Your task to perform on an android device: Open the phone app and click the voicemail tab. Image 0: 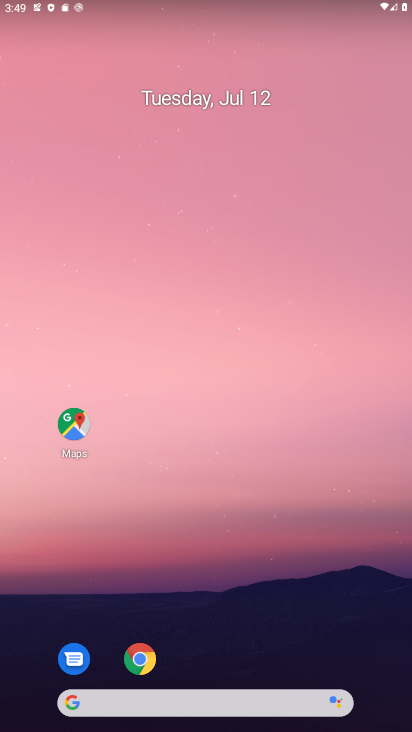
Step 0: drag from (194, 726) to (193, 561)
Your task to perform on an android device: Open the phone app and click the voicemail tab. Image 1: 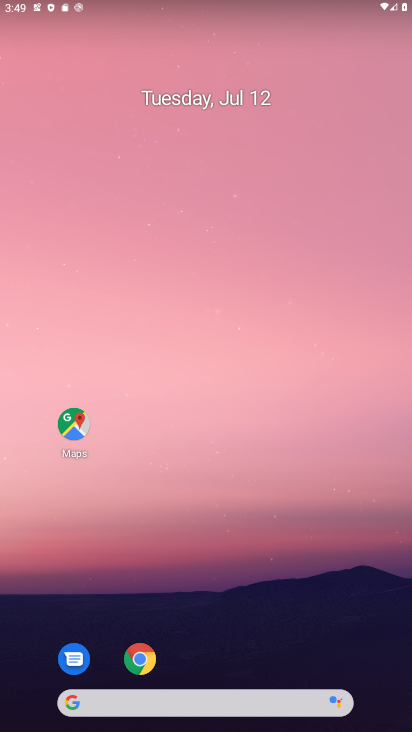
Step 1: drag from (188, 298) to (183, 163)
Your task to perform on an android device: Open the phone app and click the voicemail tab. Image 2: 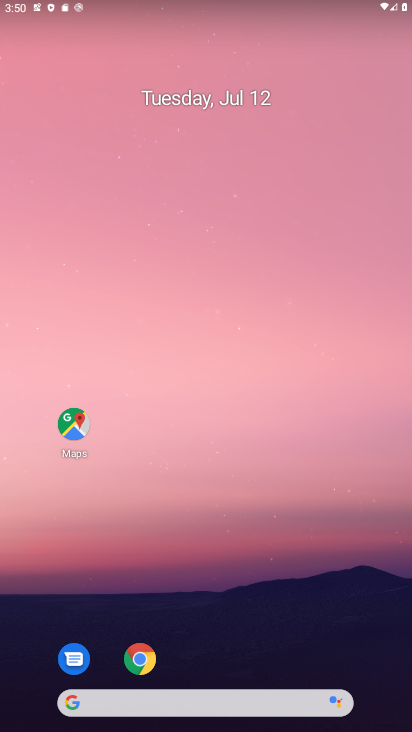
Step 2: drag from (221, 705) to (221, 131)
Your task to perform on an android device: Open the phone app and click the voicemail tab. Image 3: 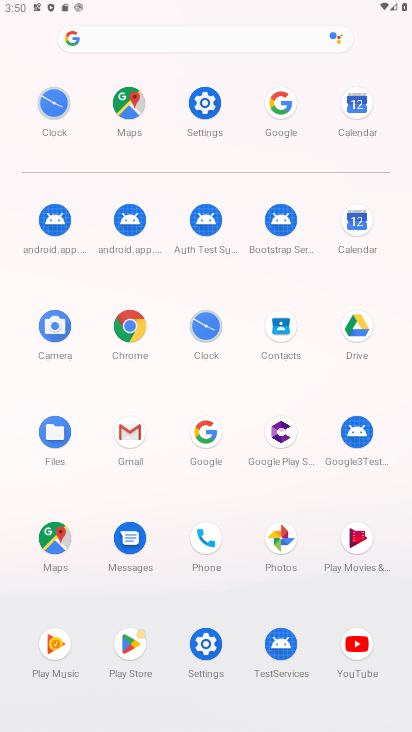
Step 3: click (202, 536)
Your task to perform on an android device: Open the phone app and click the voicemail tab. Image 4: 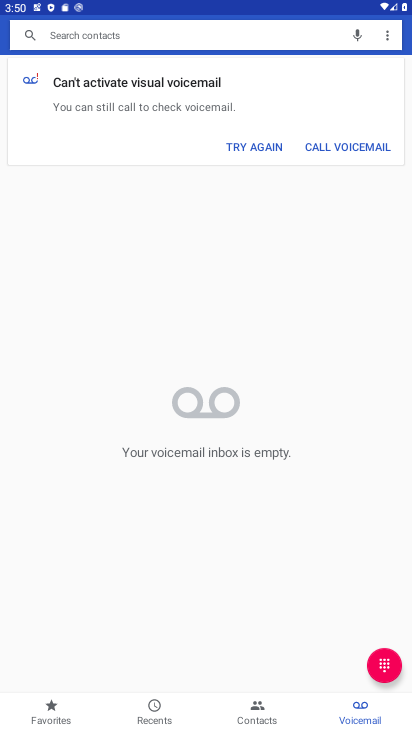
Step 4: task complete